Your task to perform on an android device: clear history in the chrome app Image 0: 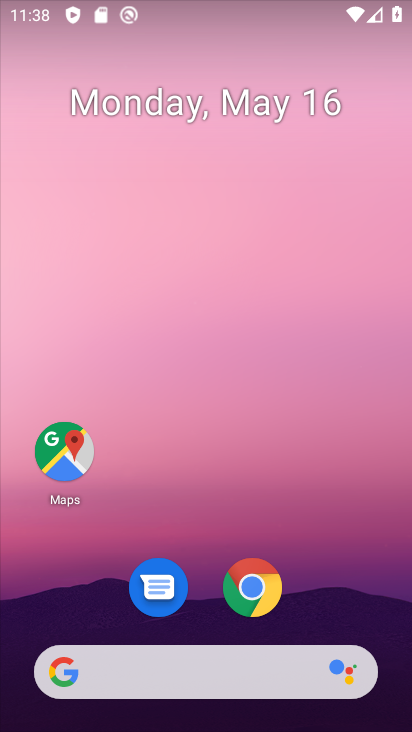
Step 0: drag from (363, 601) to (303, 69)
Your task to perform on an android device: clear history in the chrome app Image 1: 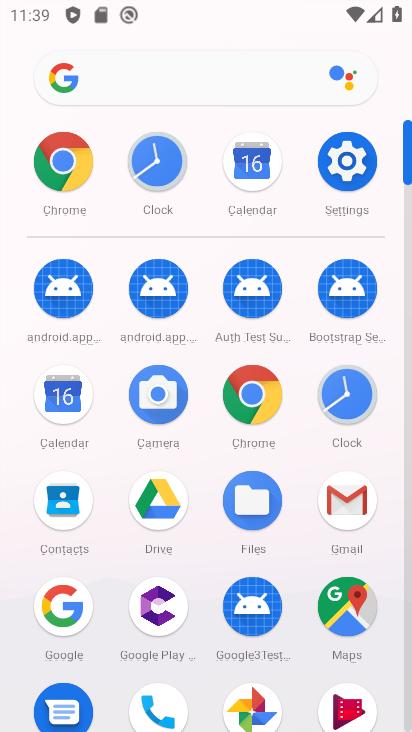
Step 1: click (259, 377)
Your task to perform on an android device: clear history in the chrome app Image 2: 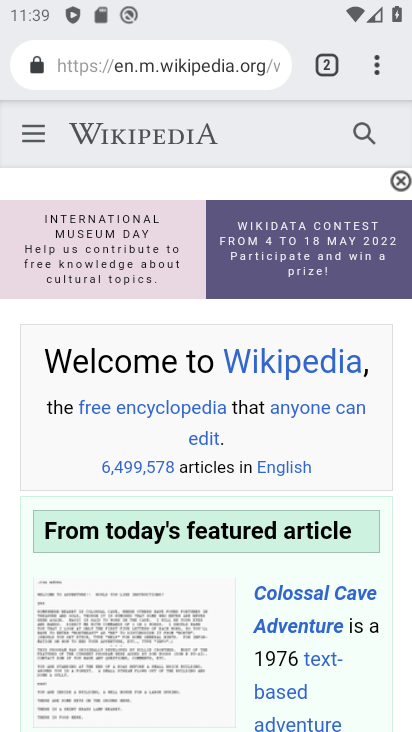
Step 2: press back button
Your task to perform on an android device: clear history in the chrome app Image 3: 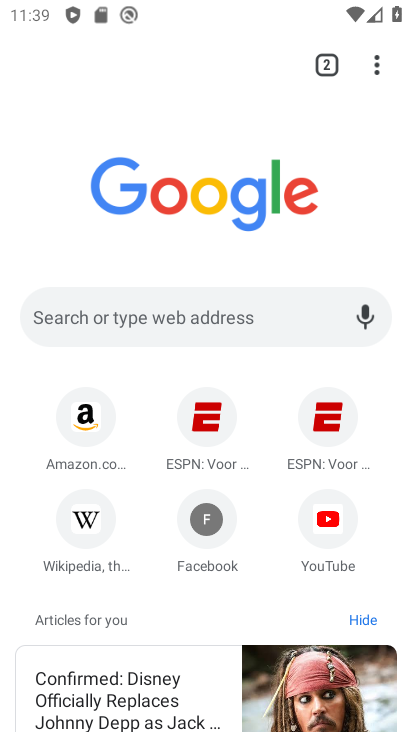
Step 3: click (382, 71)
Your task to perform on an android device: clear history in the chrome app Image 4: 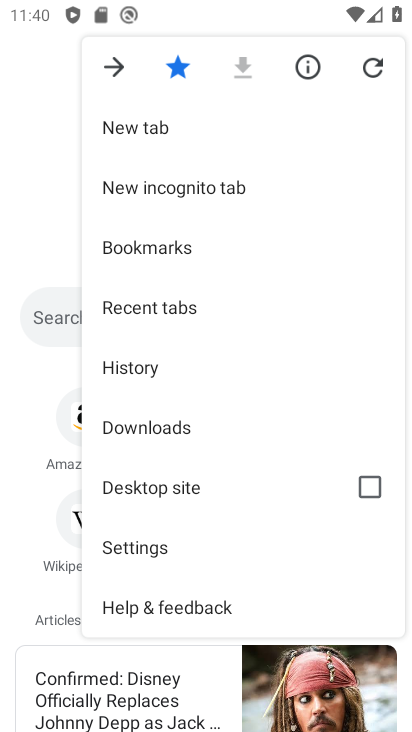
Step 4: click (225, 367)
Your task to perform on an android device: clear history in the chrome app Image 5: 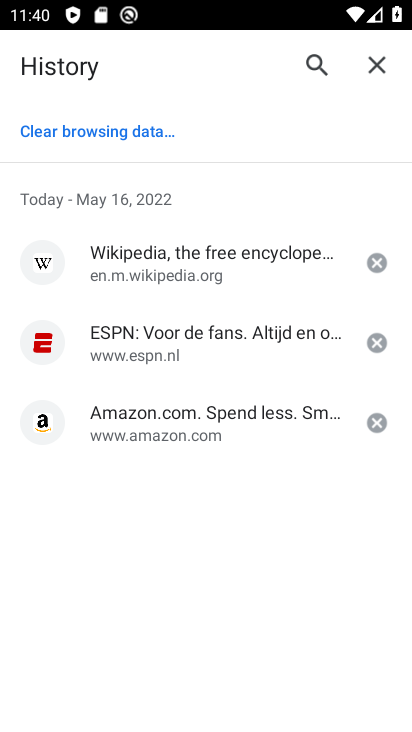
Step 5: click (124, 138)
Your task to perform on an android device: clear history in the chrome app Image 6: 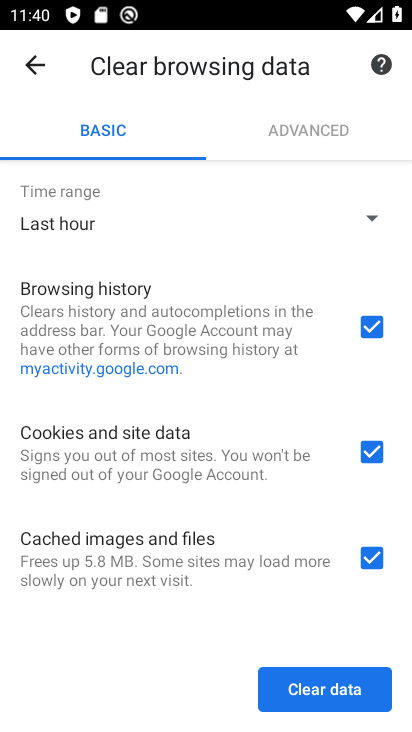
Step 6: click (370, 686)
Your task to perform on an android device: clear history in the chrome app Image 7: 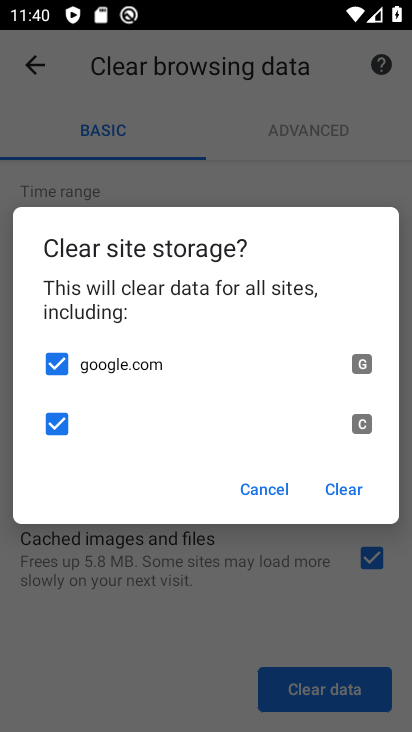
Step 7: click (345, 492)
Your task to perform on an android device: clear history in the chrome app Image 8: 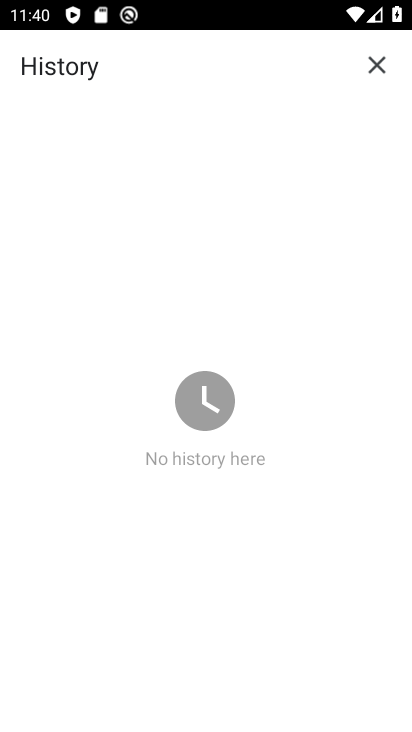
Step 8: task complete